Your task to perform on an android device: turn off airplane mode Image 0: 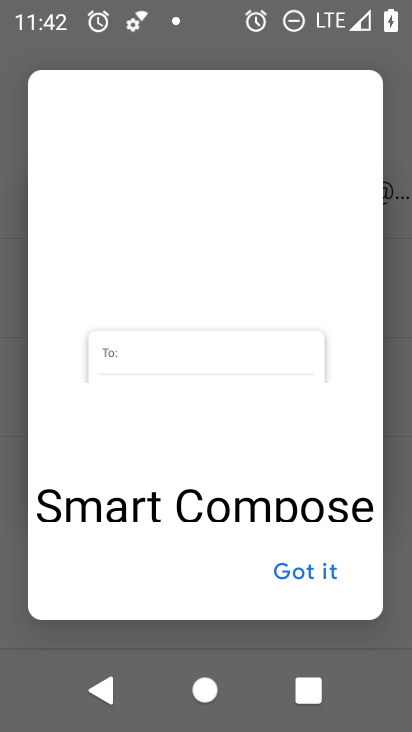
Step 0: press back button
Your task to perform on an android device: turn off airplane mode Image 1: 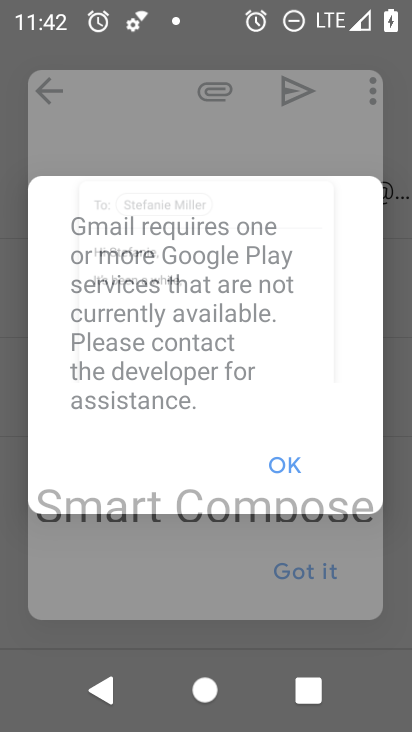
Step 1: press home button
Your task to perform on an android device: turn off airplane mode Image 2: 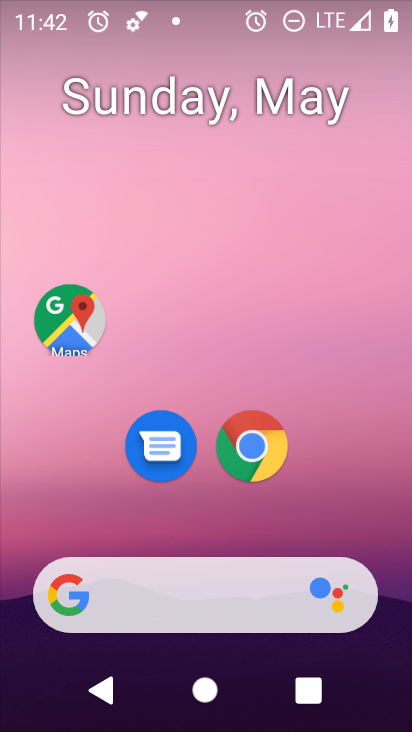
Step 2: drag from (377, 522) to (260, 18)
Your task to perform on an android device: turn off airplane mode Image 3: 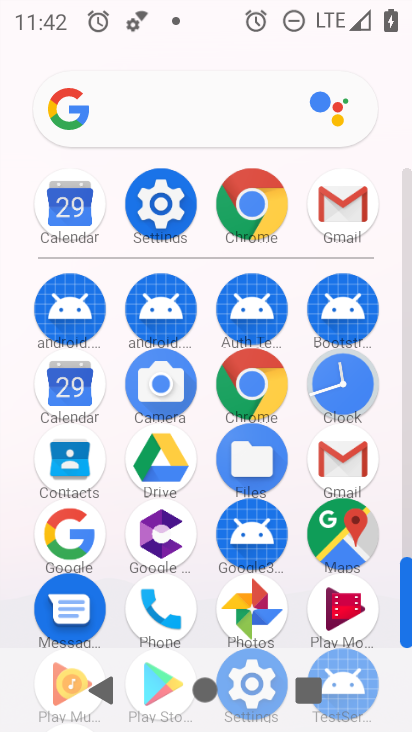
Step 3: click (148, 200)
Your task to perform on an android device: turn off airplane mode Image 4: 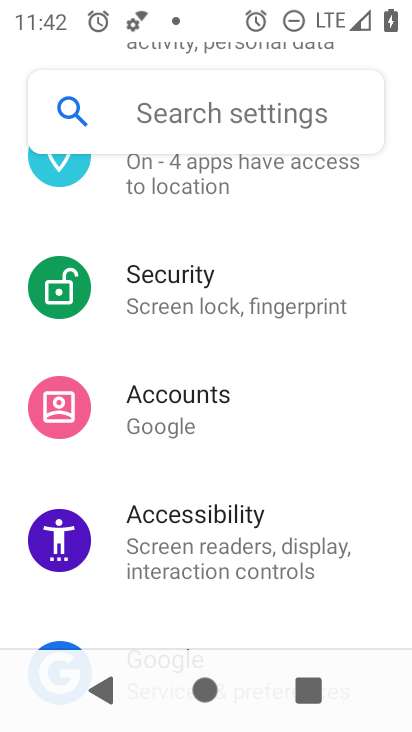
Step 4: drag from (305, 239) to (252, 574)
Your task to perform on an android device: turn off airplane mode Image 5: 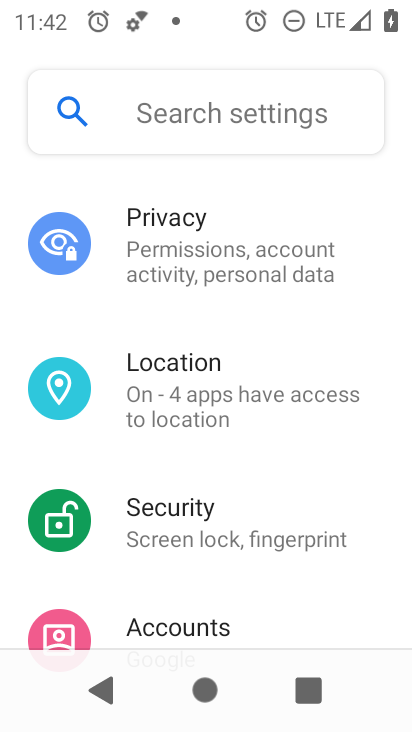
Step 5: click (263, 240)
Your task to perform on an android device: turn off airplane mode Image 6: 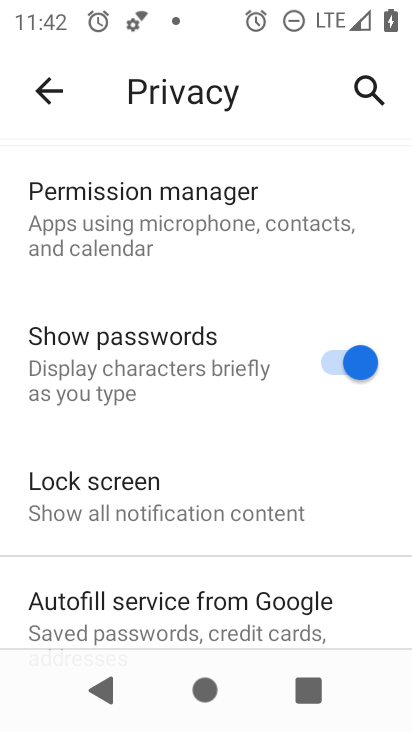
Step 6: drag from (217, 480) to (225, 138)
Your task to perform on an android device: turn off airplane mode Image 7: 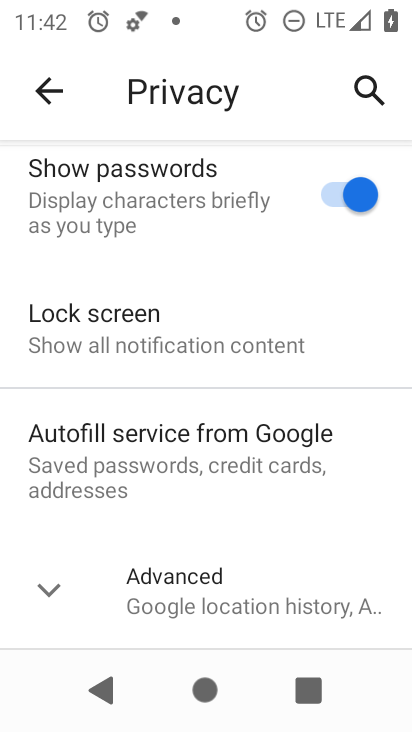
Step 7: click (57, 601)
Your task to perform on an android device: turn off airplane mode Image 8: 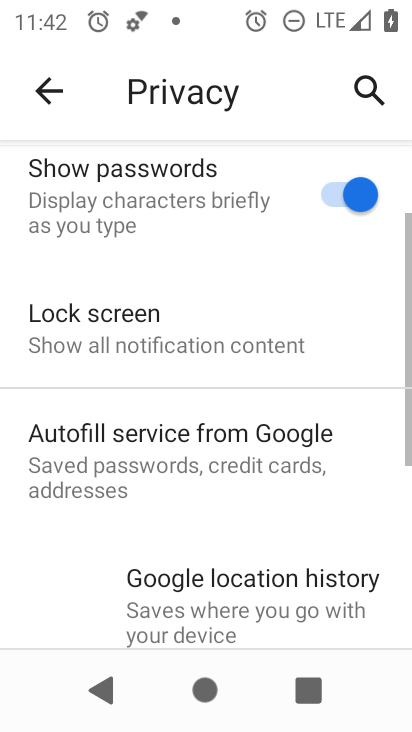
Step 8: drag from (178, 571) to (194, 161)
Your task to perform on an android device: turn off airplane mode Image 9: 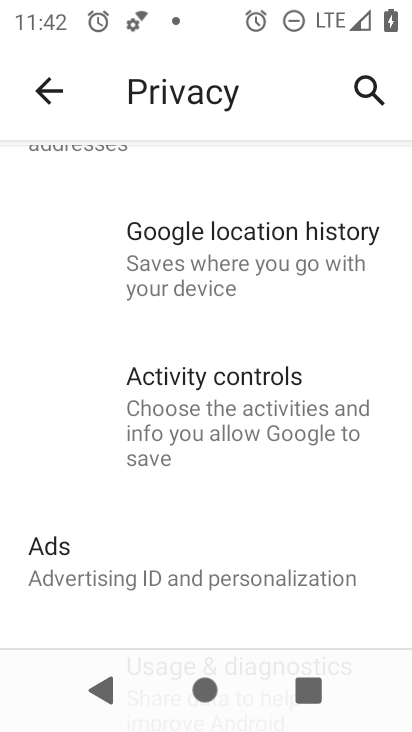
Step 9: drag from (183, 570) to (194, 173)
Your task to perform on an android device: turn off airplane mode Image 10: 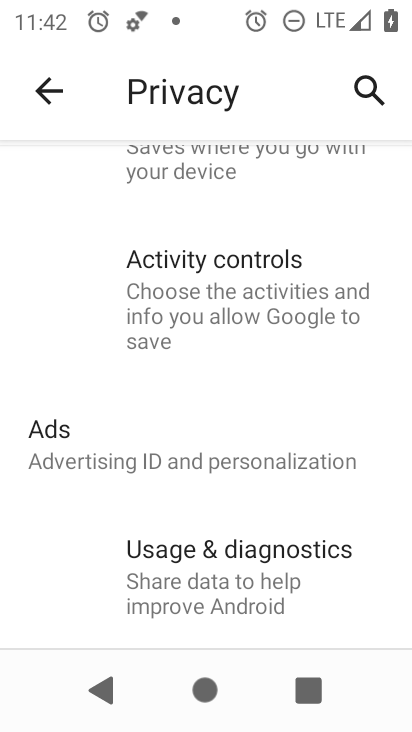
Step 10: drag from (234, 284) to (236, 519)
Your task to perform on an android device: turn off airplane mode Image 11: 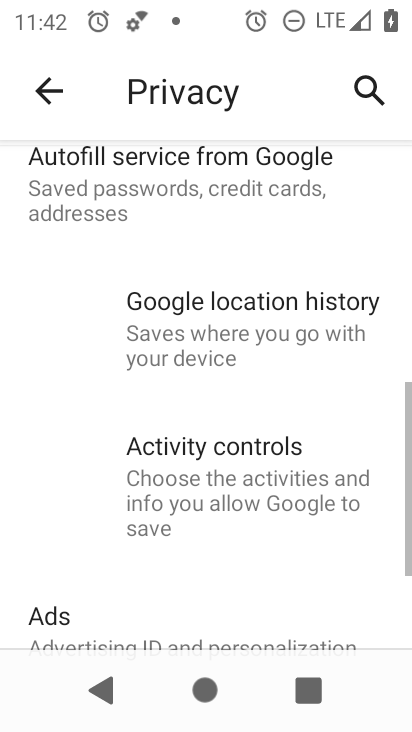
Step 11: click (180, 555)
Your task to perform on an android device: turn off airplane mode Image 12: 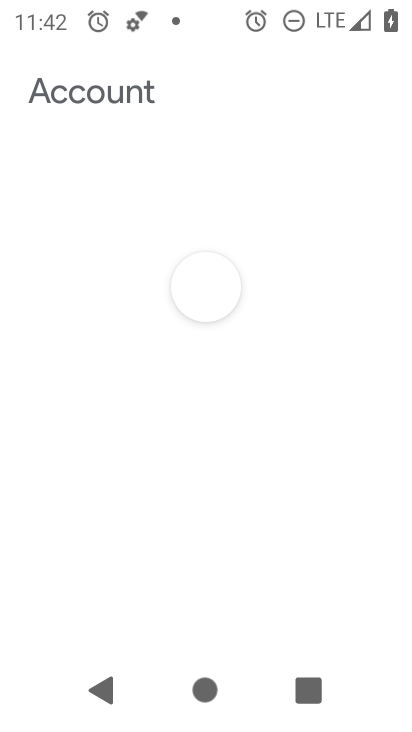
Step 12: drag from (199, 225) to (199, 513)
Your task to perform on an android device: turn off airplane mode Image 13: 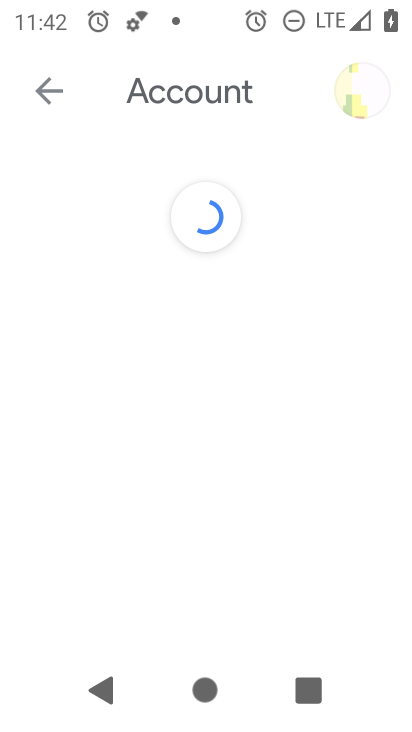
Step 13: click (47, 85)
Your task to perform on an android device: turn off airplane mode Image 14: 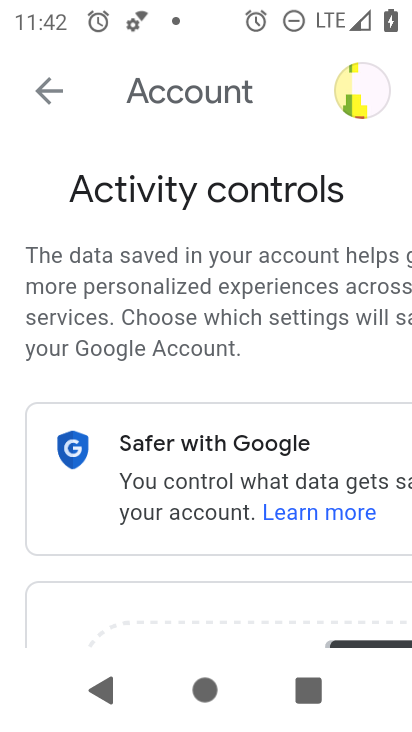
Step 14: click (47, 85)
Your task to perform on an android device: turn off airplane mode Image 15: 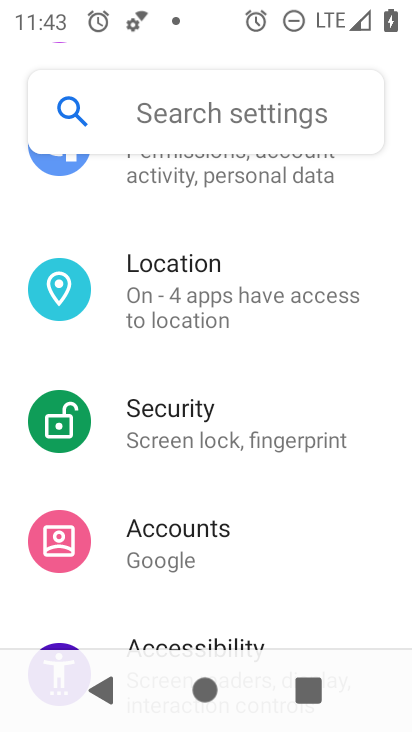
Step 15: drag from (252, 241) to (258, 612)
Your task to perform on an android device: turn off airplane mode Image 16: 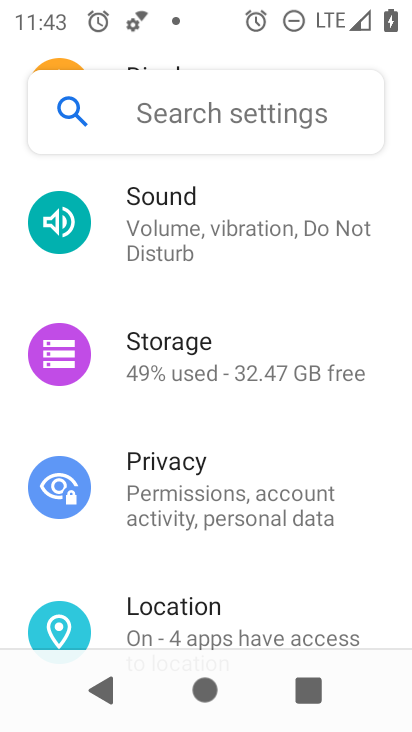
Step 16: drag from (252, 228) to (278, 576)
Your task to perform on an android device: turn off airplane mode Image 17: 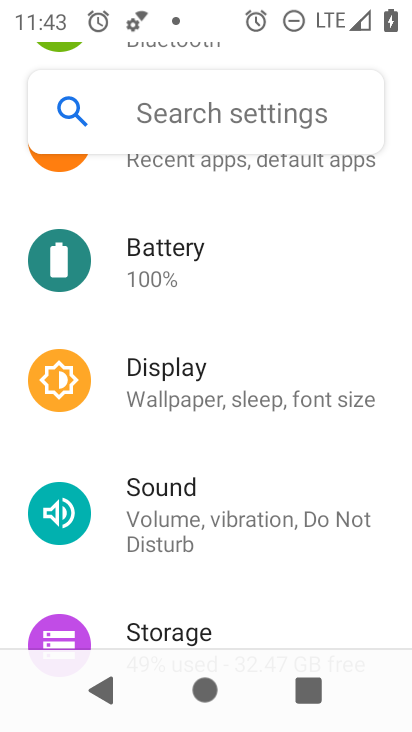
Step 17: drag from (260, 241) to (249, 567)
Your task to perform on an android device: turn off airplane mode Image 18: 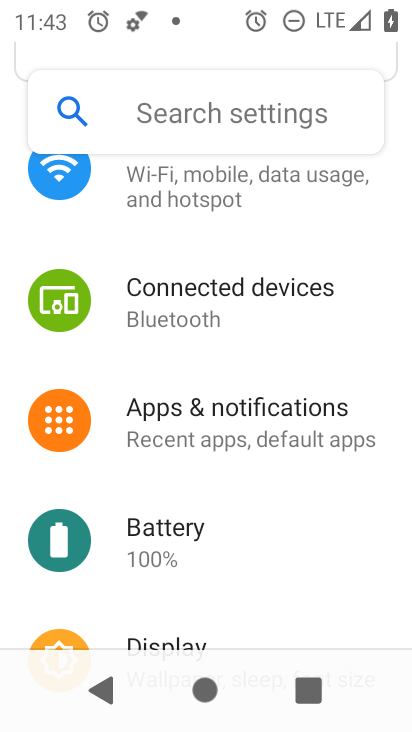
Step 18: drag from (296, 251) to (298, 546)
Your task to perform on an android device: turn off airplane mode Image 19: 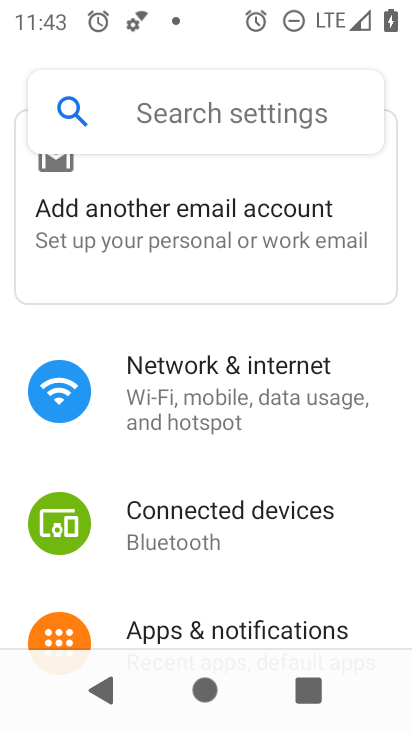
Step 19: click (261, 400)
Your task to perform on an android device: turn off airplane mode Image 20: 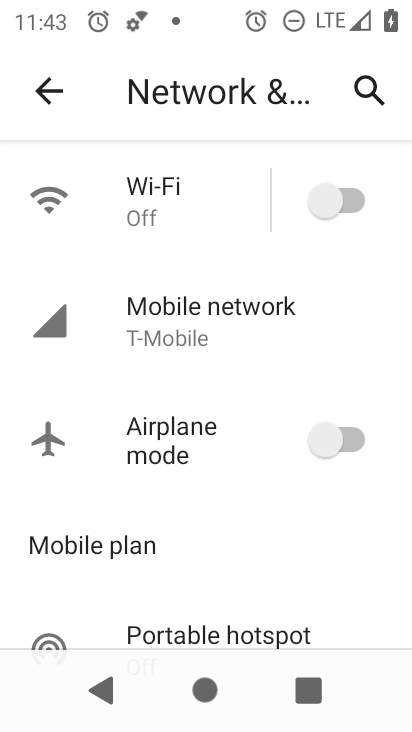
Step 20: drag from (255, 517) to (237, 214)
Your task to perform on an android device: turn off airplane mode Image 21: 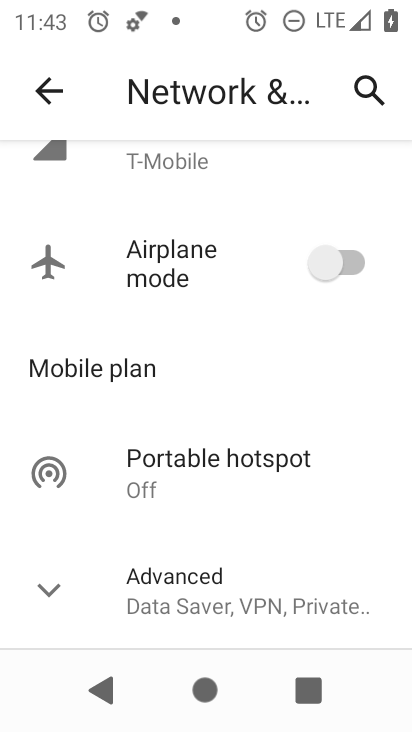
Step 21: click (52, 588)
Your task to perform on an android device: turn off airplane mode Image 22: 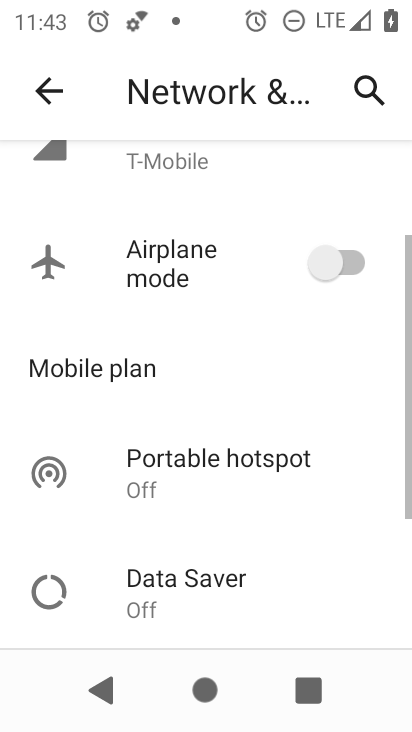
Step 22: task complete